Your task to perform on an android device: turn notification dots on Image 0: 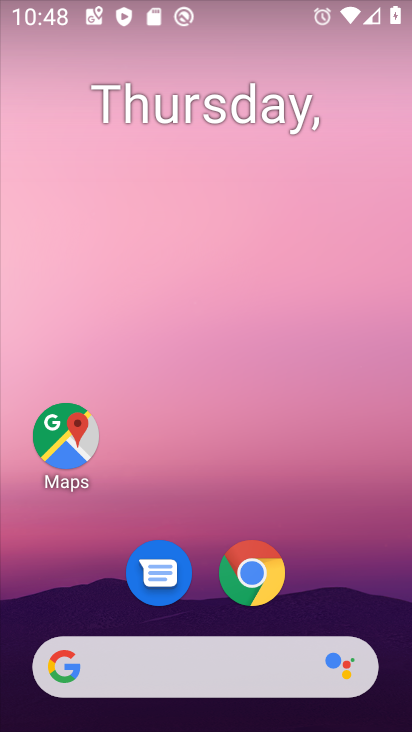
Step 0: drag from (285, 639) to (327, 142)
Your task to perform on an android device: turn notification dots on Image 1: 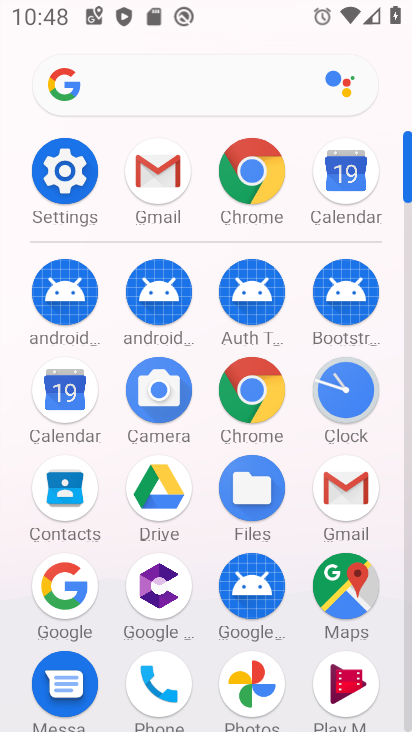
Step 1: click (65, 188)
Your task to perform on an android device: turn notification dots on Image 2: 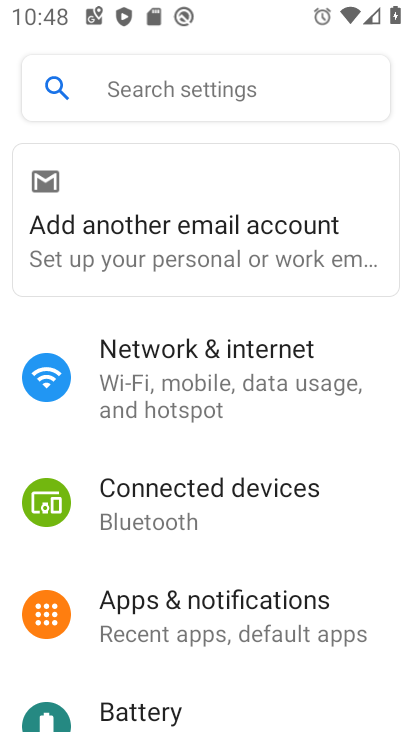
Step 2: click (187, 609)
Your task to perform on an android device: turn notification dots on Image 3: 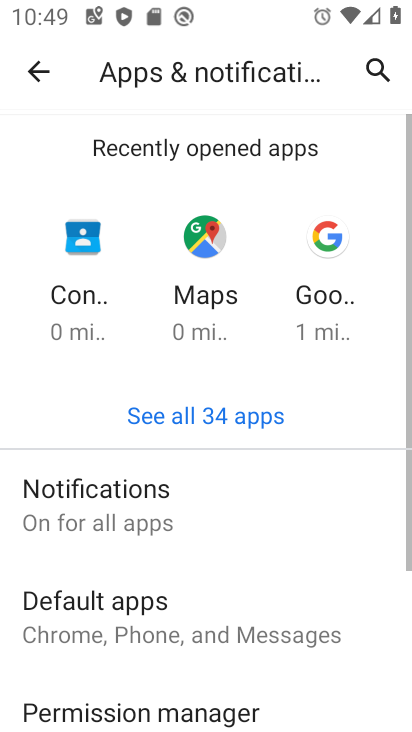
Step 3: drag from (191, 602) to (225, 406)
Your task to perform on an android device: turn notification dots on Image 4: 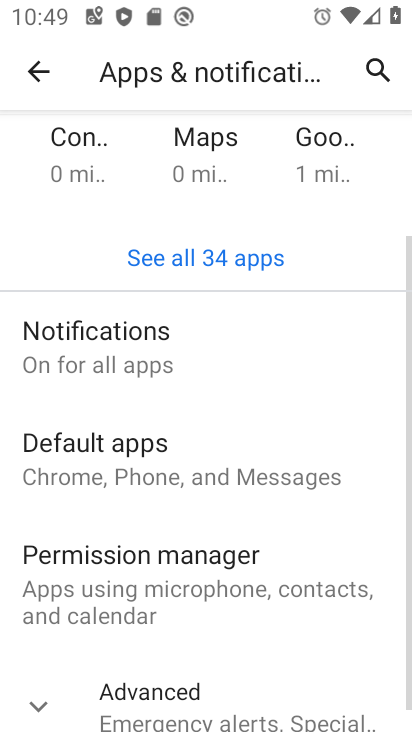
Step 4: click (102, 331)
Your task to perform on an android device: turn notification dots on Image 5: 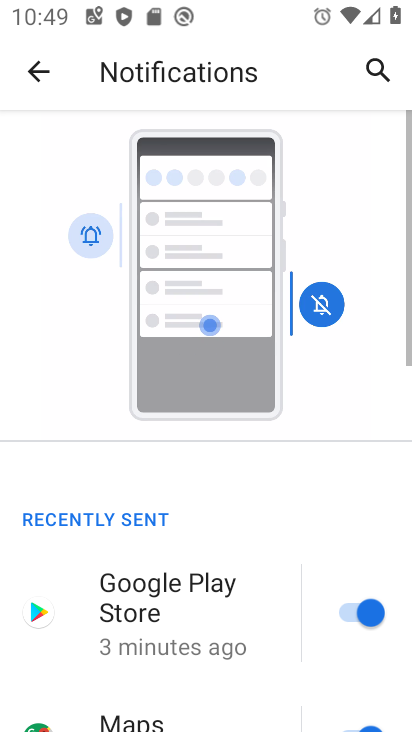
Step 5: drag from (180, 600) to (286, 127)
Your task to perform on an android device: turn notification dots on Image 6: 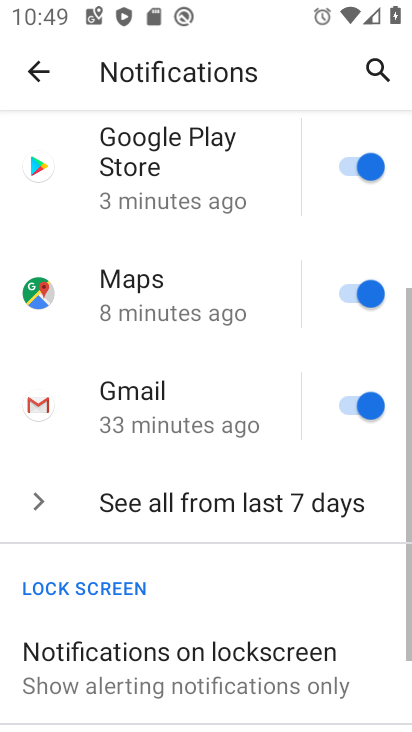
Step 6: click (286, 127)
Your task to perform on an android device: turn notification dots on Image 7: 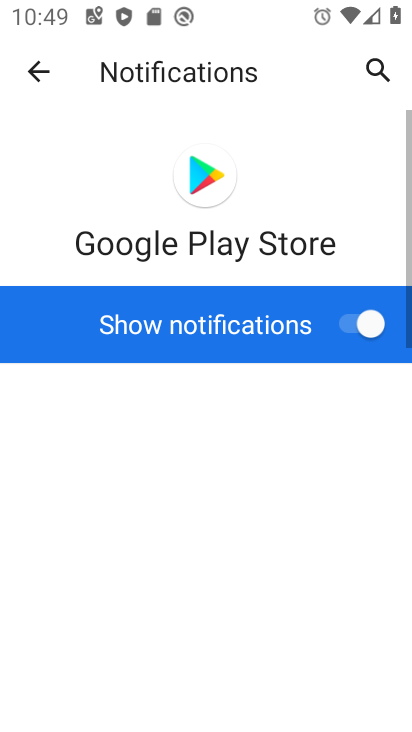
Step 7: drag from (180, 624) to (228, 339)
Your task to perform on an android device: turn notification dots on Image 8: 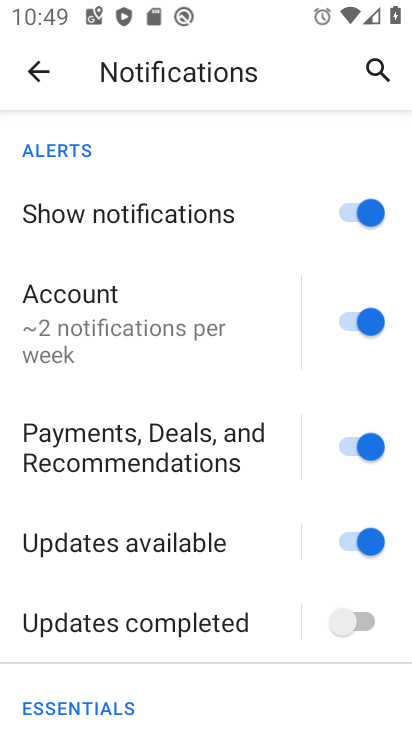
Step 8: click (39, 77)
Your task to perform on an android device: turn notification dots on Image 9: 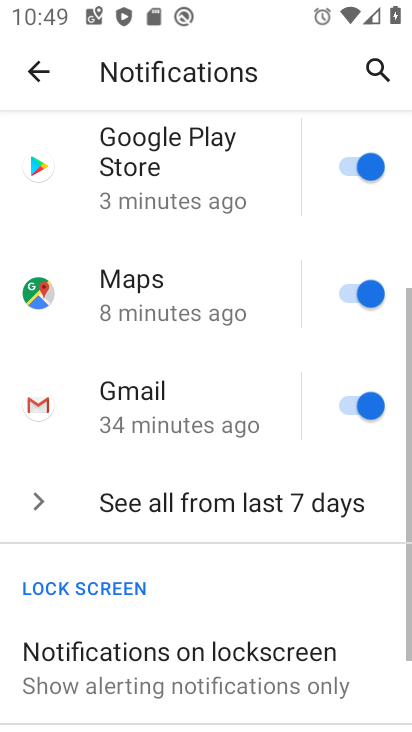
Step 9: drag from (195, 610) to (280, 140)
Your task to perform on an android device: turn notification dots on Image 10: 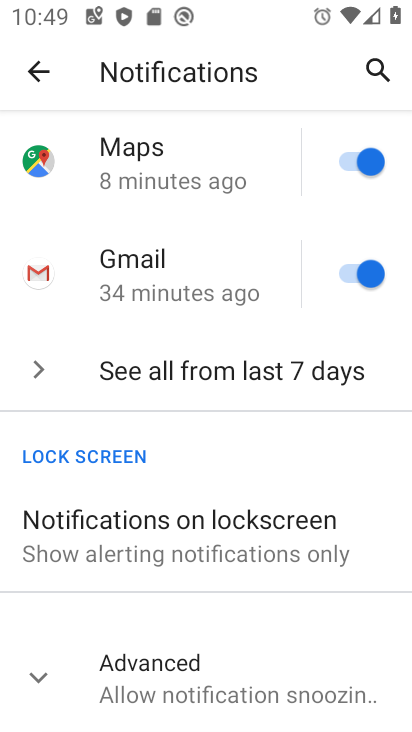
Step 10: click (189, 690)
Your task to perform on an android device: turn notification dots on Image 11: 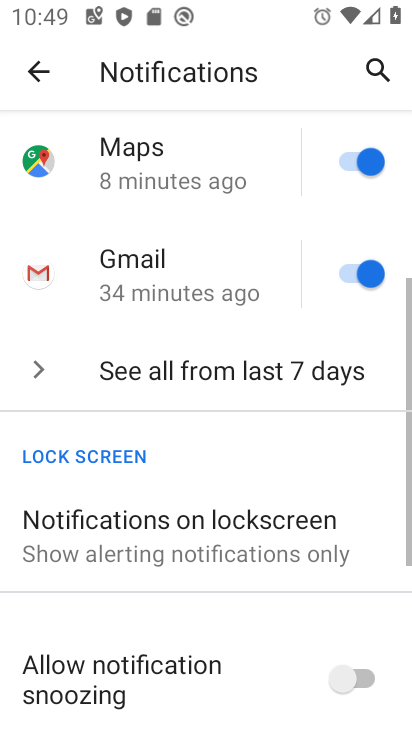
Step 11: drag from (228, 645) to (243, 271)
Your task to perform on an android device: turn notification dots on Image 12: 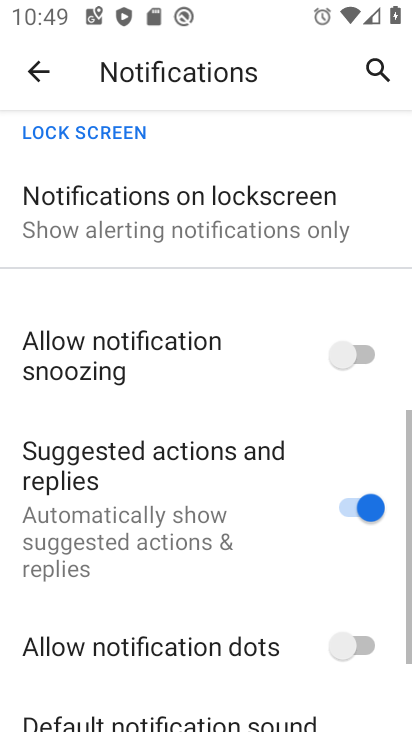
Step 12: click (243, 271)
Your task to perform on an android device: turn notification dots on Image 13: 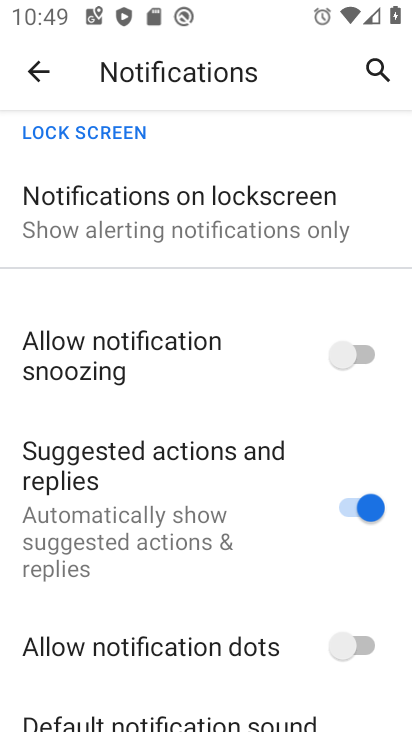
Step 13: click (367, 634)
Your task to perform on an android device: turn notification dots on Image 14: 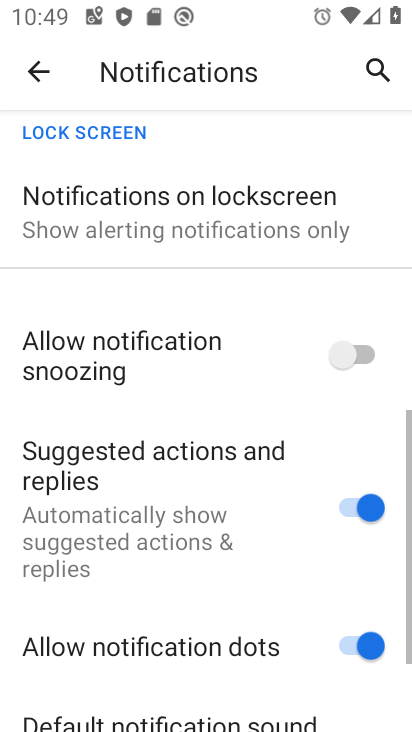
Step 14: task complete